Your task to perform on an android device: open wifi settings Image 0: 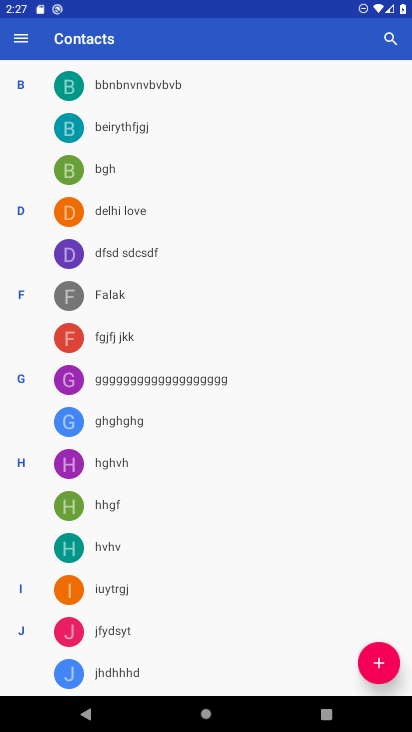
Step 0: drag from (275, 7) to (218, 517)
Your task to perform on an android device: open wifi settings Image 1: 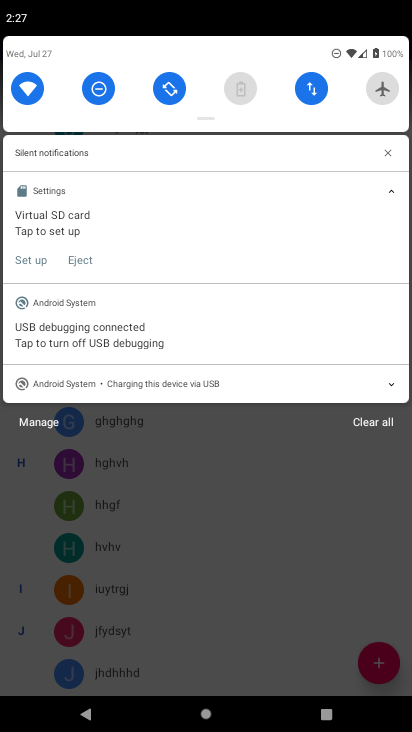
Step 1: task complete